Your task to perform on an android device: stop showing notifications on the lock screen Image 0: 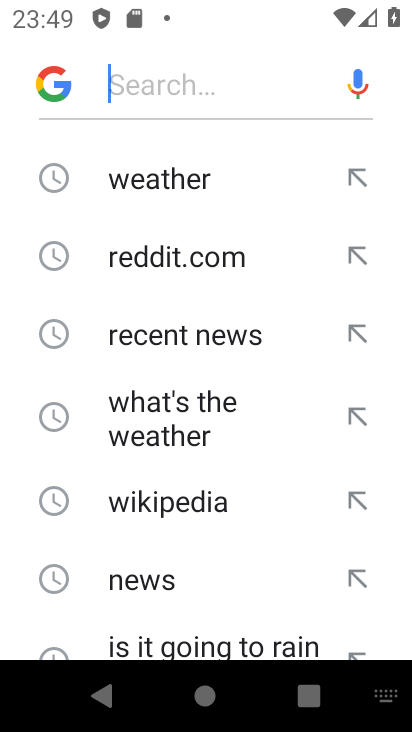
Step 0: press back button
Your task to perform on an android device: stop showing notifications on the lock screen Image 1: 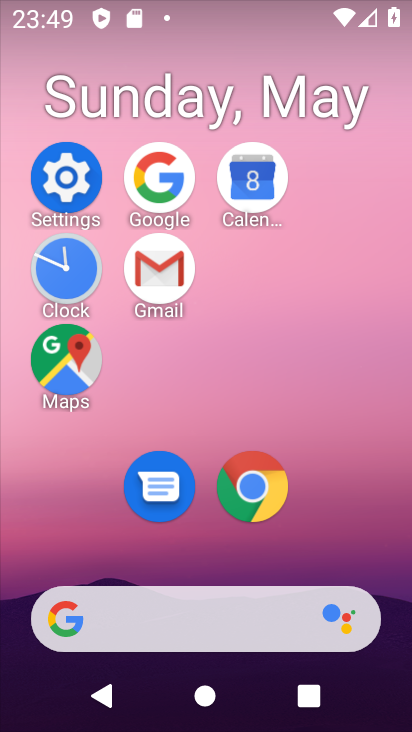
Step 1: click (62, 191)
Your task to perform on an android device: stop showing notifications on the lock screen Image 2: 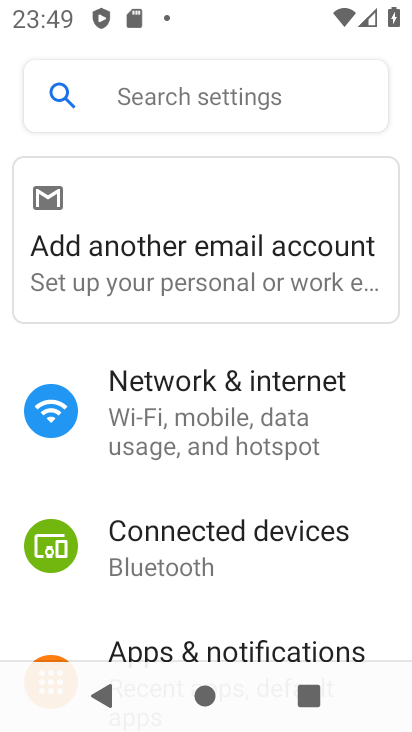
Step 2: drag from (248, 599) to (253, 115)
Your task to perform on an android device: stop showing notifications on the lock screen Image 3: 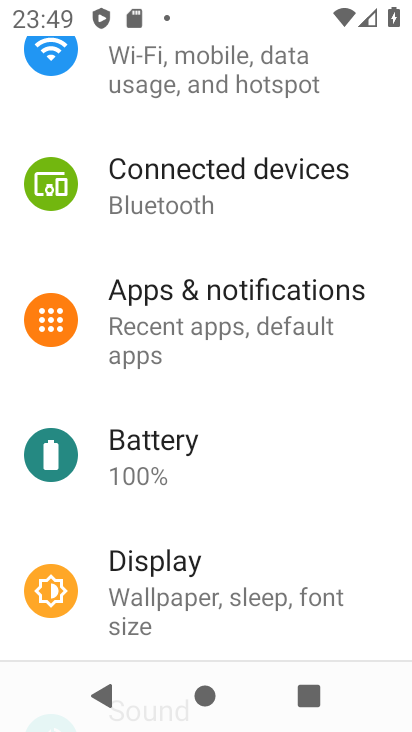
Step 3: click (233, 315)
Your task to perform on an android device: stop showing notifications on the lock screen Image 4: 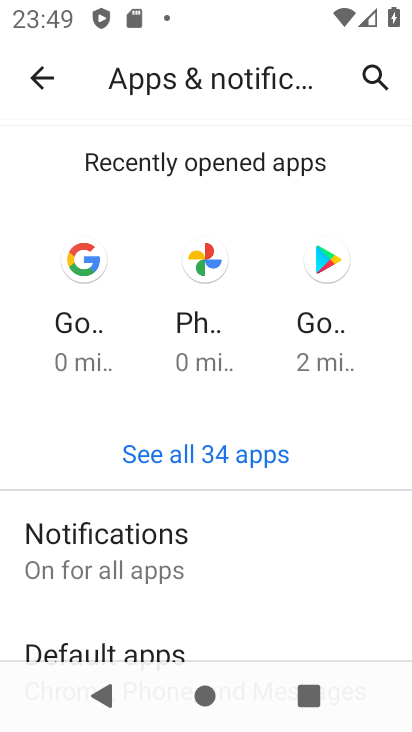
Step 4: click (171, 539)
Your task to perform on an android device: stop showing notifications on the lock screen Image 5: 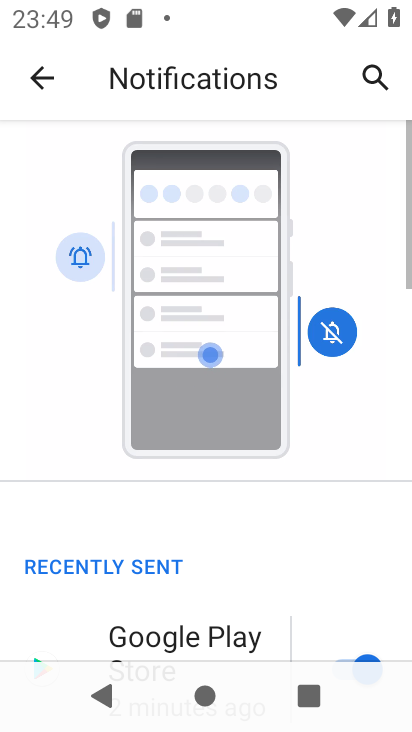
Step 5: drag from (262, 549) to (272, 100)
Your task to perform on an android device: stop showing notifications on the lock screen Image 6: 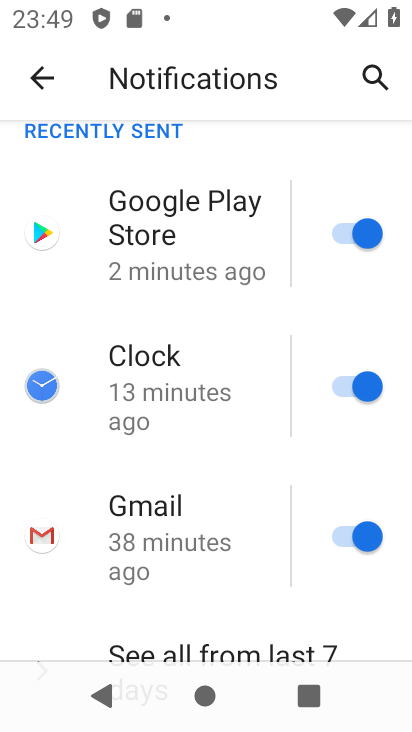
Step 6: drag from (261, 597) to (208, 171)
Your task to perform on an android device: stop showing notifications on the lock screen Image 7: 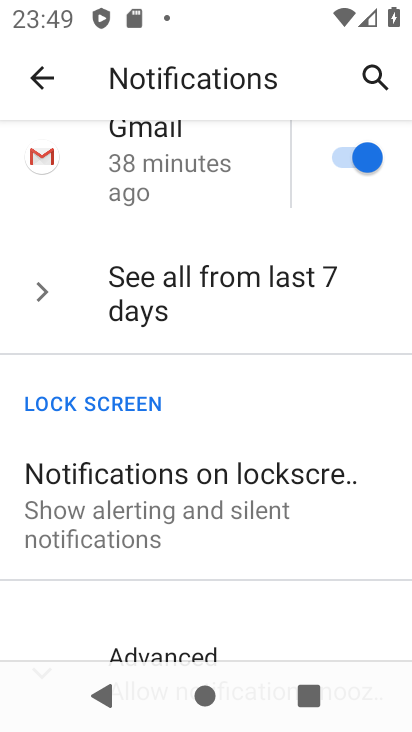
Step 7: click (190, 482)
Your task to perform on an android device: stop showing notifications on the lock screen Image 8: 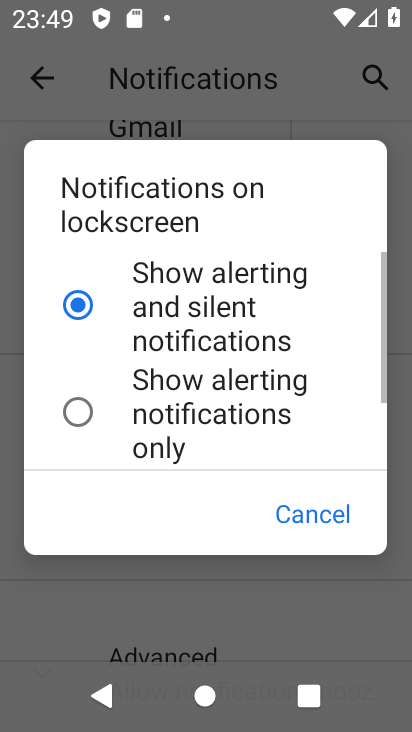
Step 8: click (155, 436)
Your task to perform on an android device: stop showing notifications on the lock screen Image 9: 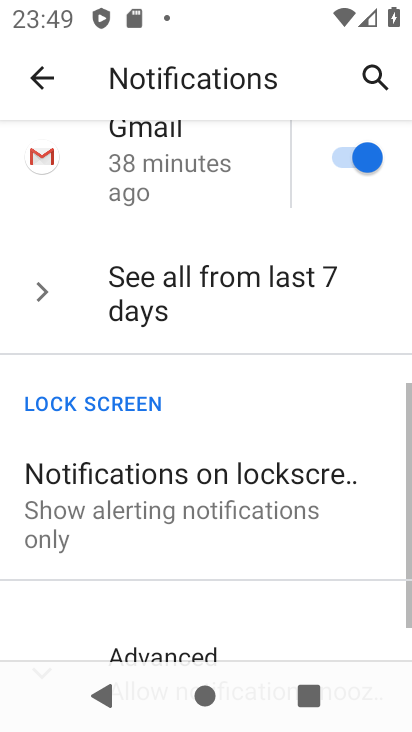
Step 9: click (226, 478)
Your task to perform on an android device: stop showing notifications on the lock screen Image 10: 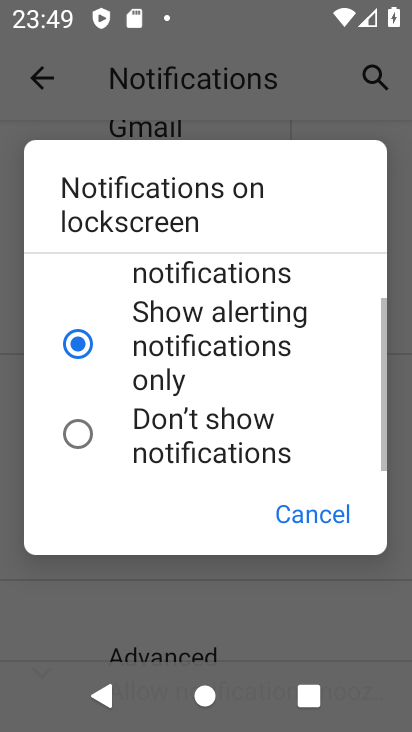
Step 10: drag from (230, 451) to (210, 102)
Your task to perform on an android device: stop showing notifications on the lock screen Image 11: 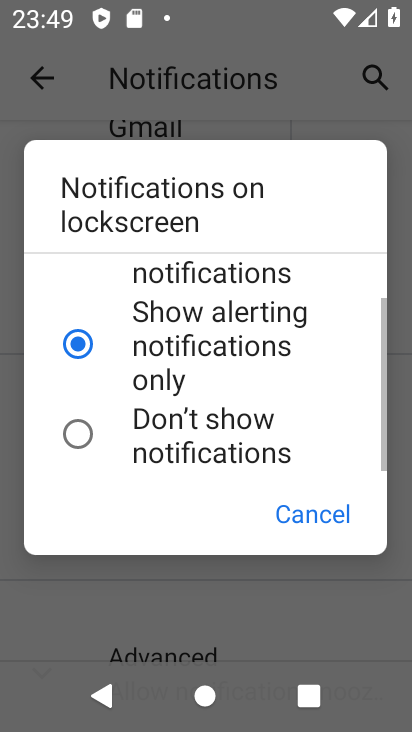
Step 11: click (203, 429)
Your task to perform on an android device: stop showing notifications on the lock screen Image 12: 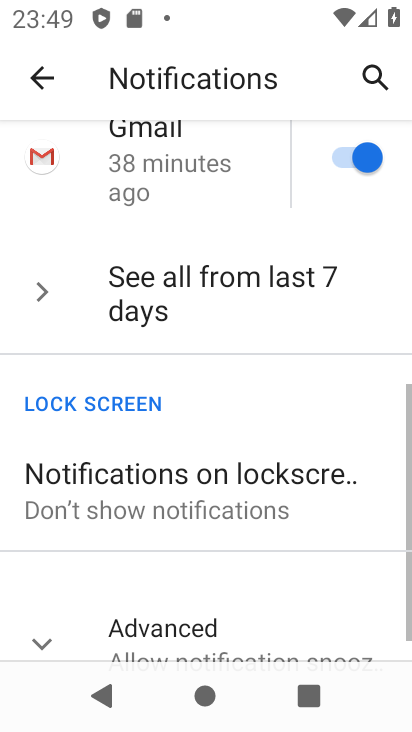
Step 12: task complete